Your task to perform on an android device: add a contact in the contacts app Image 0: 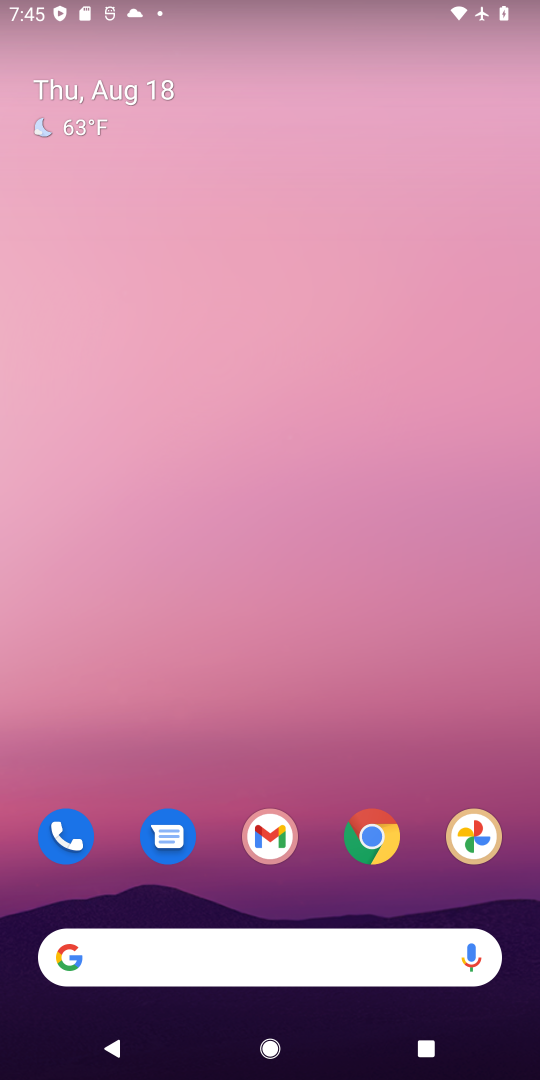
Step 0: drag from (357, 726) to (376, 191)
Your task to perform on an android device: add a contact in the contacts app Image 1: 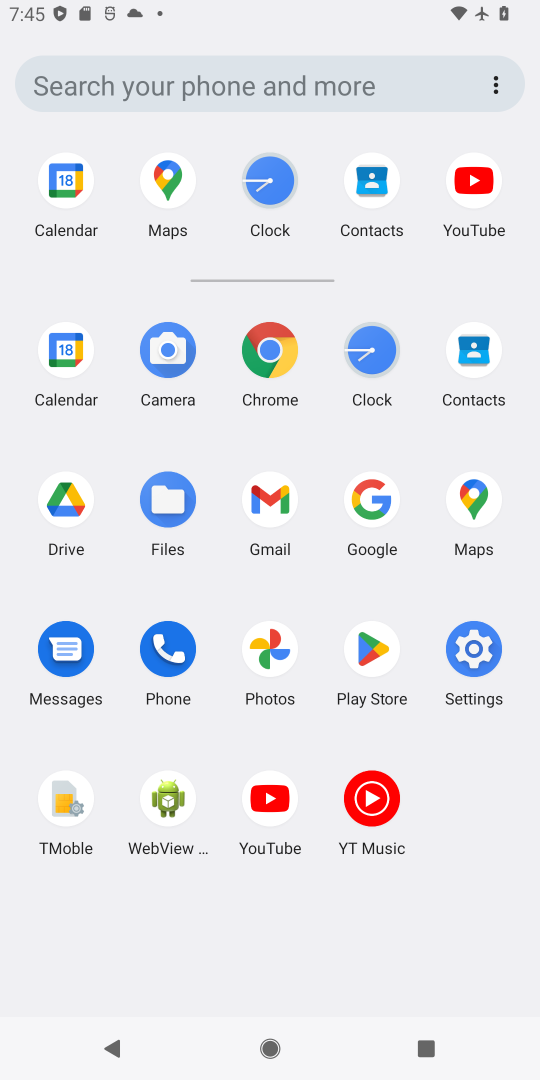
Step 1: click (477, 348)
Your task to perform on an android device: add a contact in the contacts app Image 2: 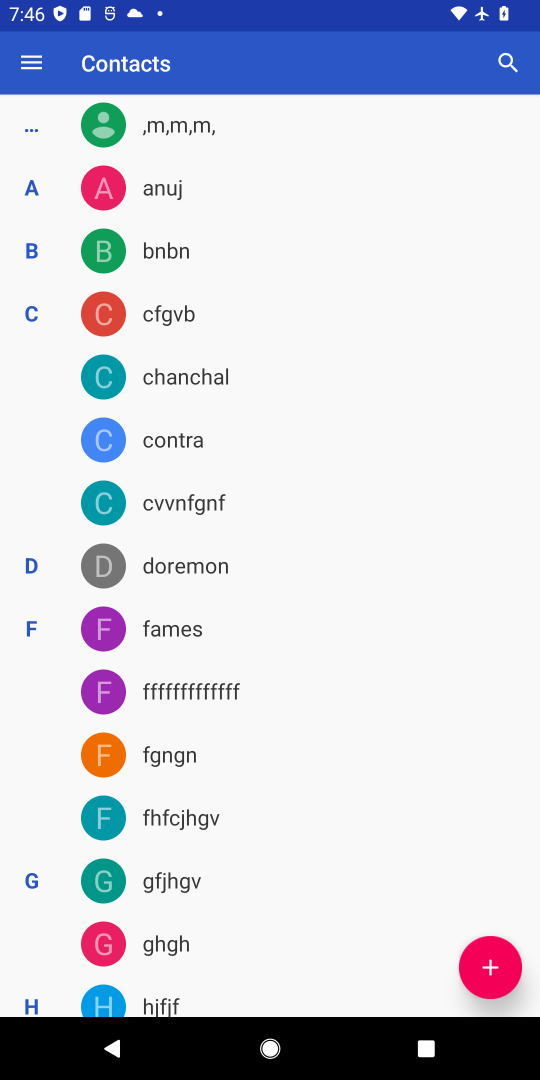
Step 2: click (499, 975)
Your task to perform on an android device: add a contact in the contacts app Image 3: 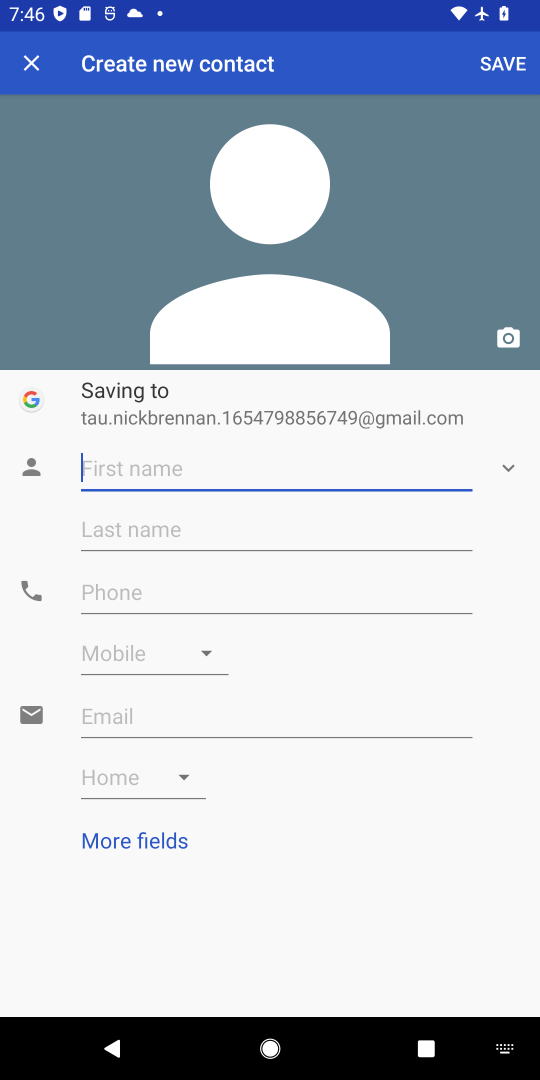
Step 3: type "uiuiui"
Your task to perform on an android device: add a contact in the contacts app Image 4: 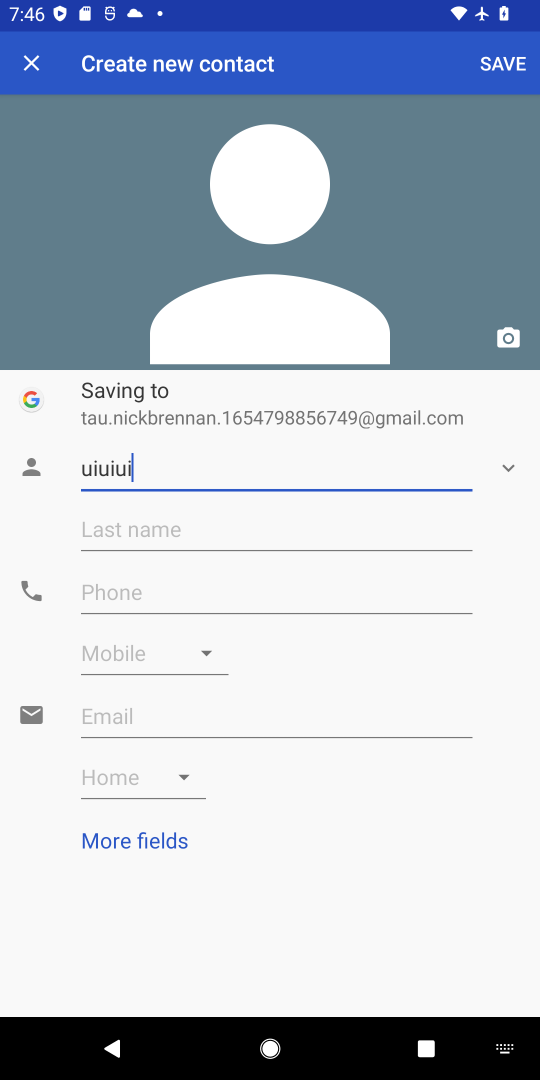
Step 4: click (502, 72)
Your task to perform on an android device: add a contact in the contacts app Image 5: 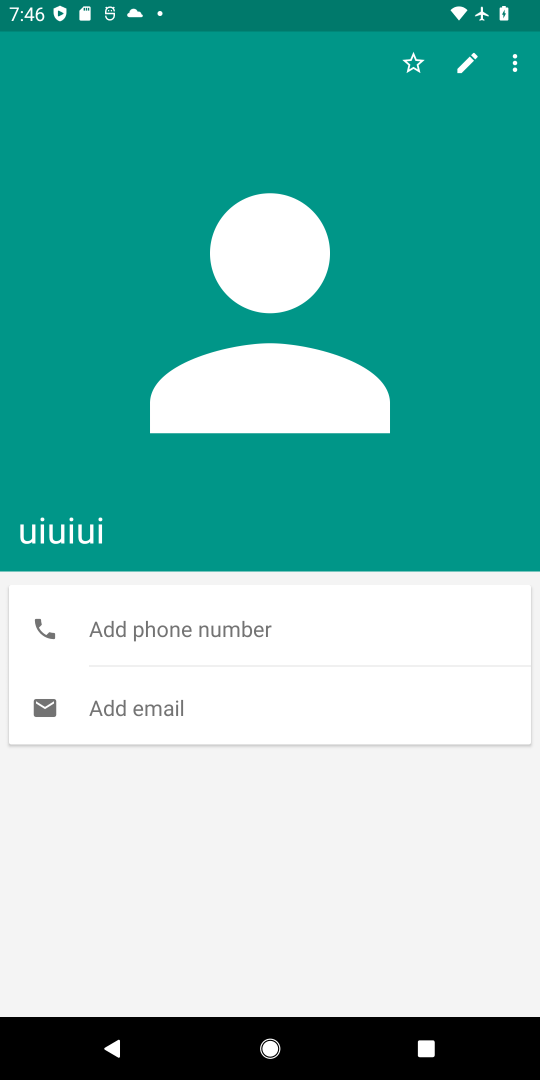
Step 5: task complete